Your task to perform on an android device: Open Youtube and go to the subscriptions tab Image 0: 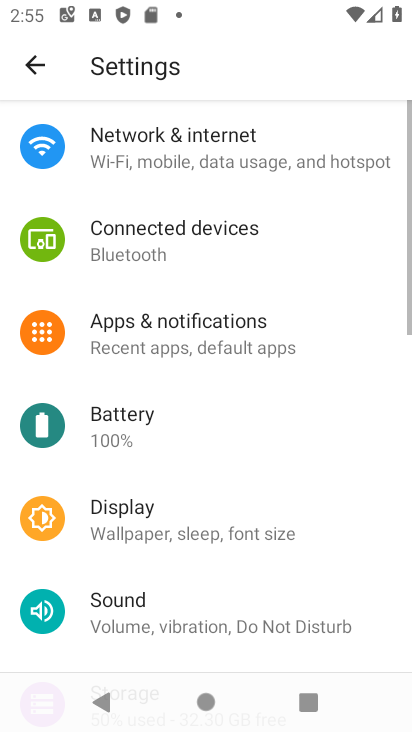
Step 0: press home button
Your task to perform on an android device: Open Youtube and go to the subscriptions tab Image 1: 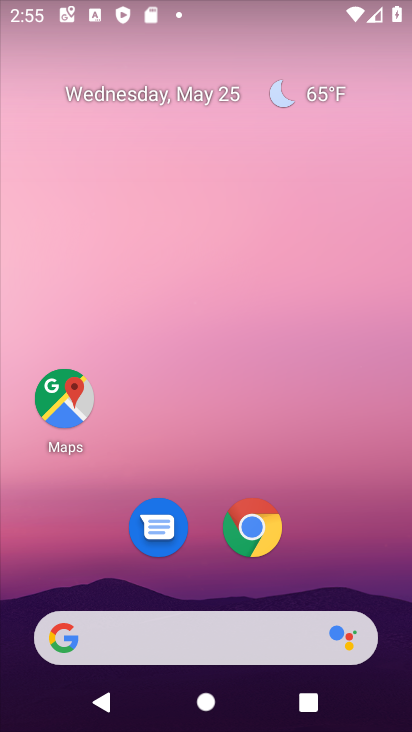
Step 1: drag from (281, 582) to (231, 50)
Your task to perform on an android device: Open Youtube and go to the subscriptions tab Image 2: 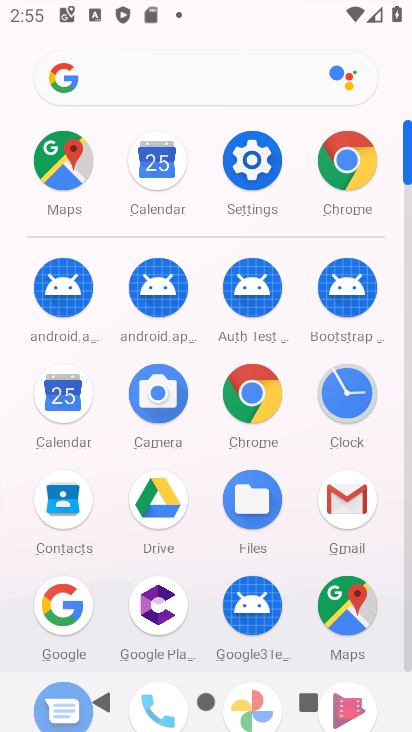
Step 2: drag from (285, 625) to (310, 133)
Your task to perform on an android device: Open Youtube and go to the subscriptions tab Image 3: 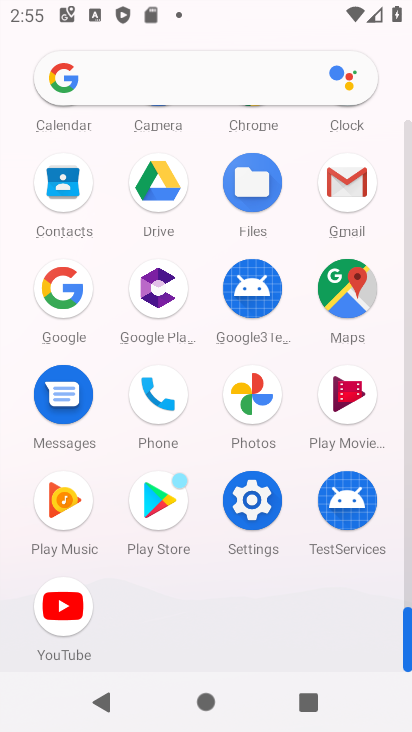
Step 3: click (63, 620)
Your task to perform on an android device: Open Youtube and go to the subscriptions tab Image 4: 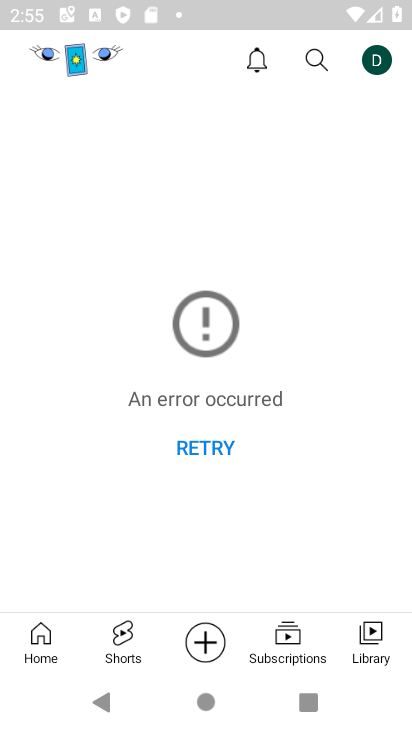
Step 4: click (294, 640)
Your task to perform on an android device: Open Youtube and go to the subscriptions tab Image 5: 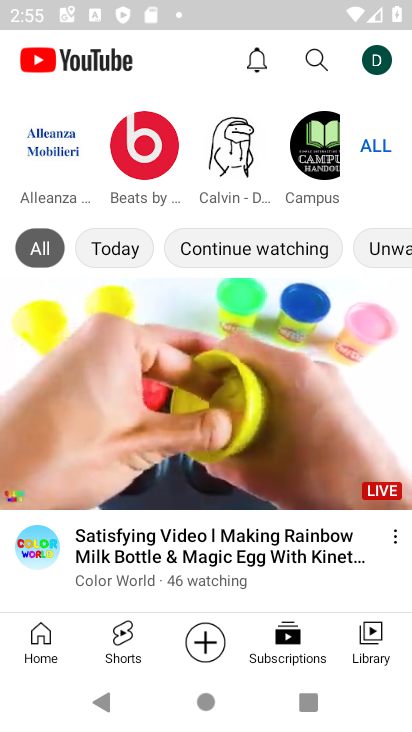
Step 5: task complete